Your task to perform on an android device: Show me productivity apps on the Play Store Image 0: 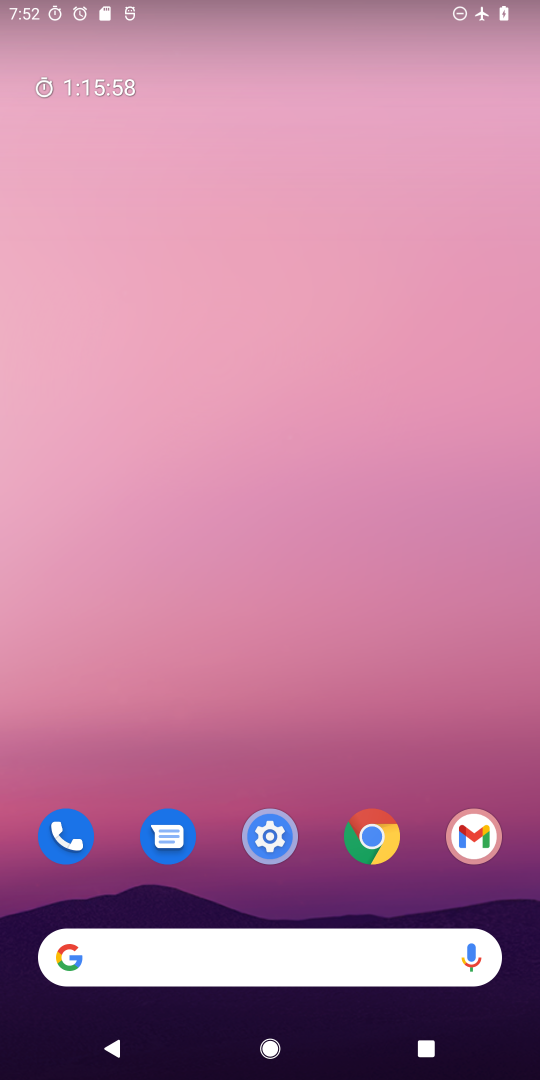
Step 0: drag from (321, 900) to (365, 350)
Your task to perform on an android device: Show me productivity apps on the Play Store Image 1: 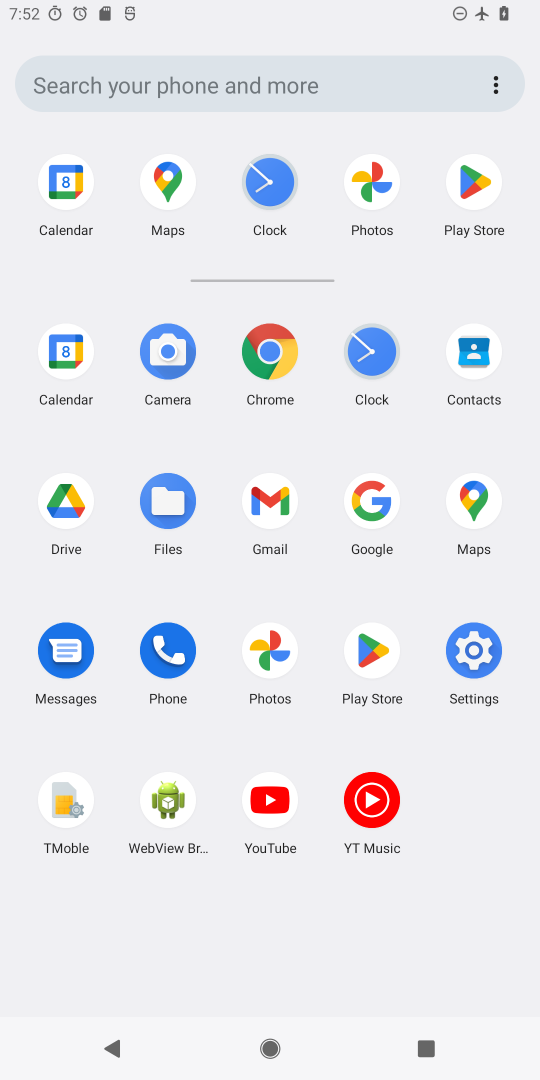
Step 1: click (390, 670)
Your task to perform on an android device: Show me productivity apps on the Play Store Image 2: 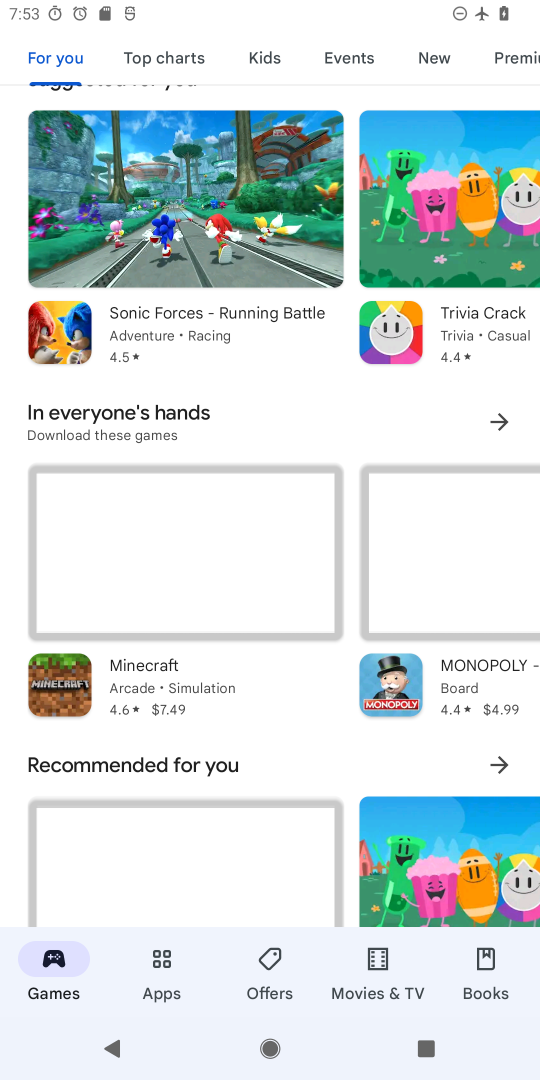
Step 2: task complete